Your task to perform on an android device: change the clock display to show seconds Image 0: 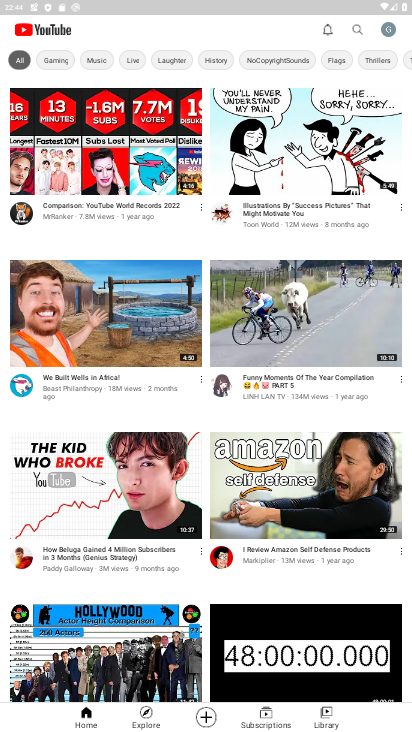
Step 0: press home button
Your task to perform on an android device: change the clock display to show seconds Image 1: 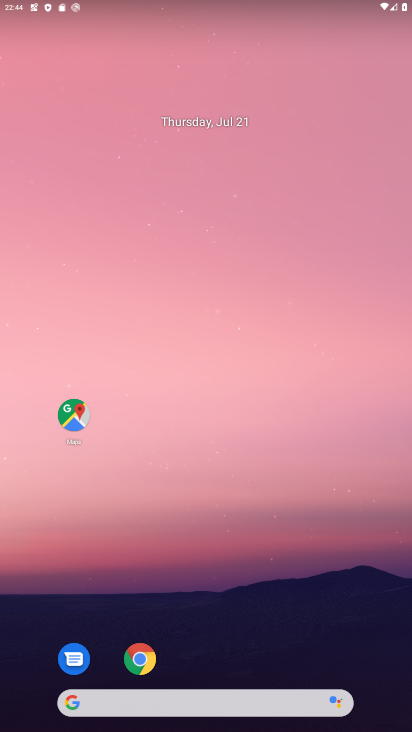
Step 1: drag from (280, 620) to (265, 33)
Your task to perform on an android device: change the clock display to show seconds Image 2: 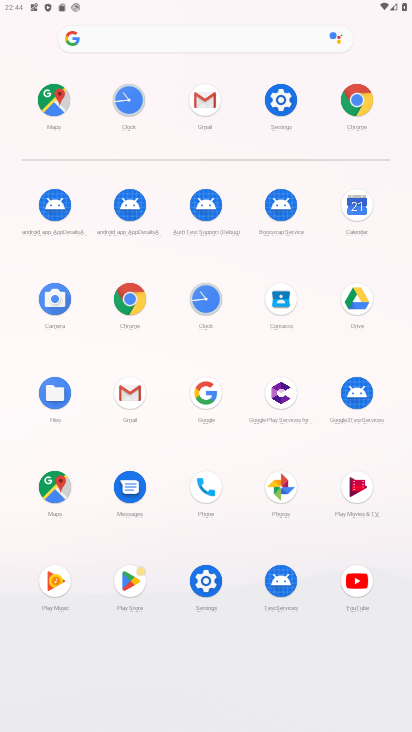
Step 2: click (204, 301)
Your task to perform on an android device: change the clock display to show seconds Image 3: 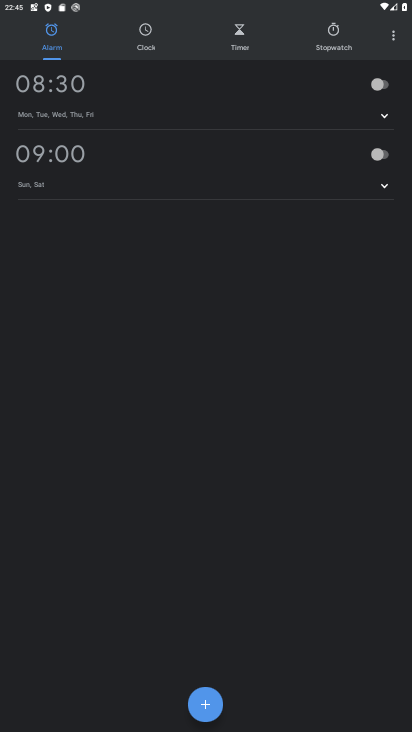
Step 3: click (400, 27)
Your task to perform on an android device: change the clock display to show seconds Image 4: 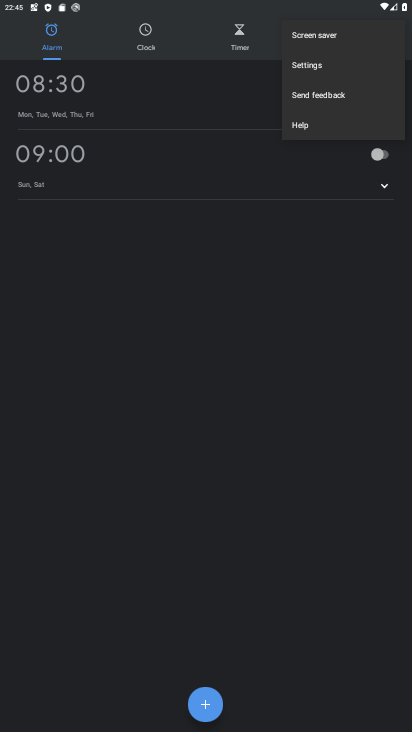
Step 4: click (318, 65)
Your task to perform on an android device: change the clock display to show seconds Image 5: 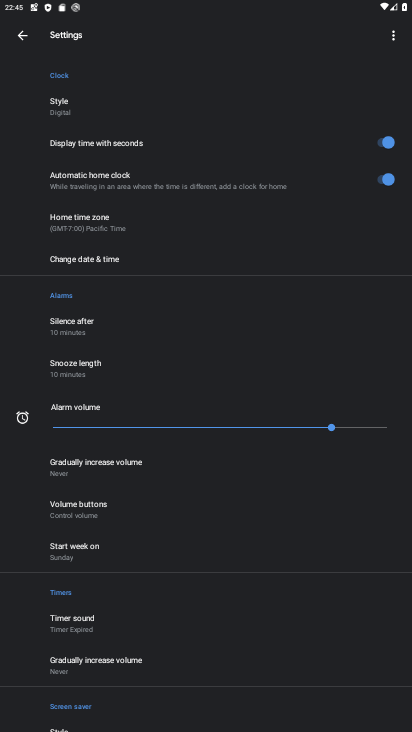
Step 5: click (106, 256)
Your task to perform on an android device: change the clock display to show seconds Image 6: 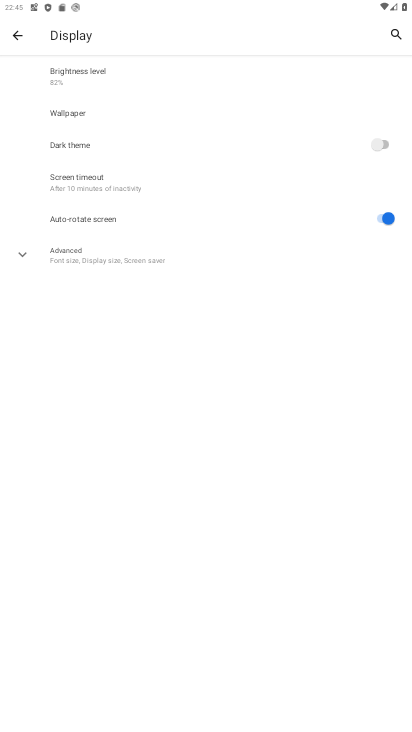
Step 6: click (14, 24)
Your task to perform on an android device: change the clock display to show seconds Image 7: 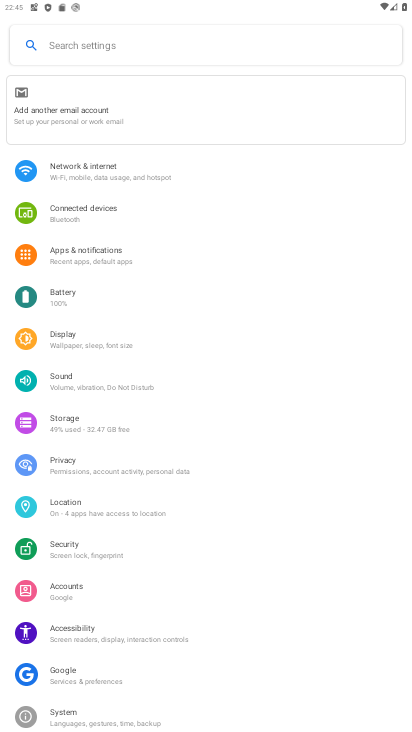
Step 7: task complete